Your task to perform on an android device: Search for flights from NYC to Chicago Image 0: 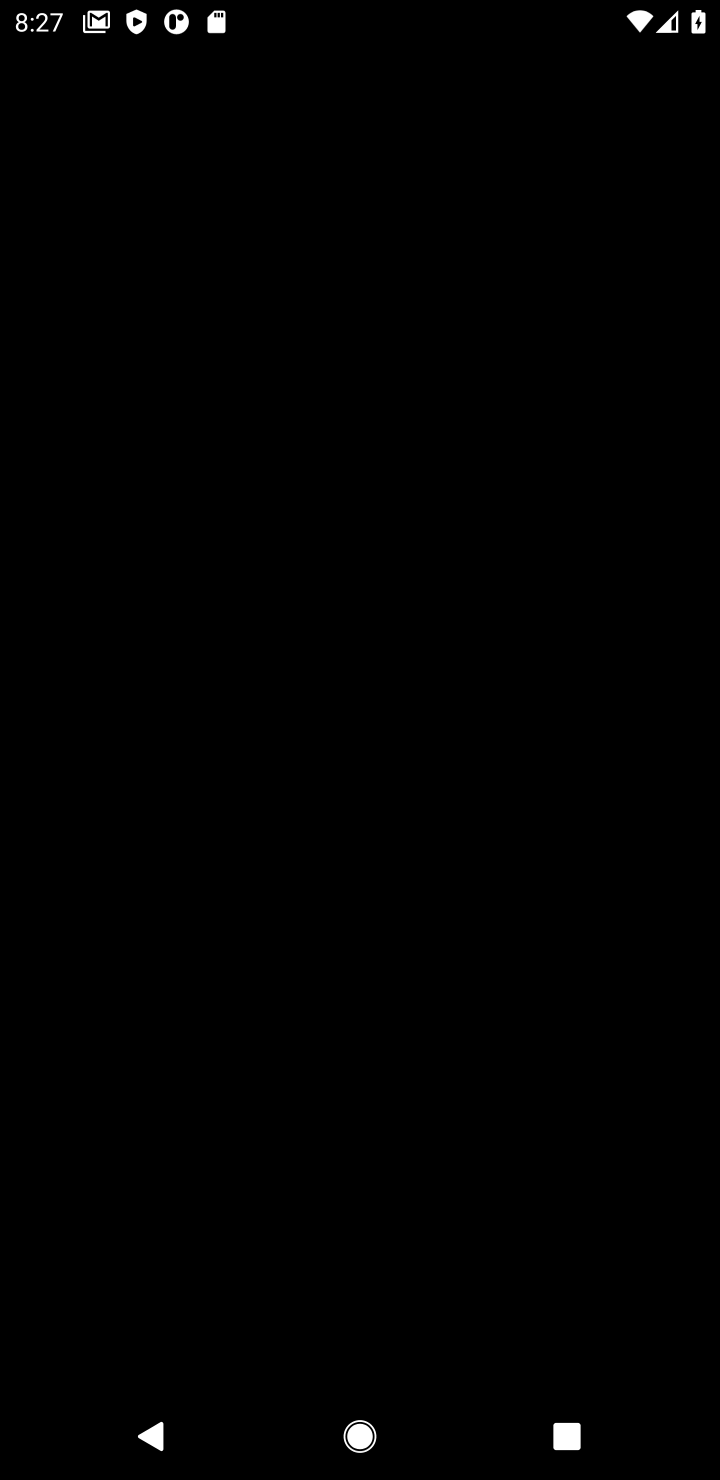
Step 0: press home button
Your task to perform on an android device: Search for flights from NYC to Chicago Image 1: 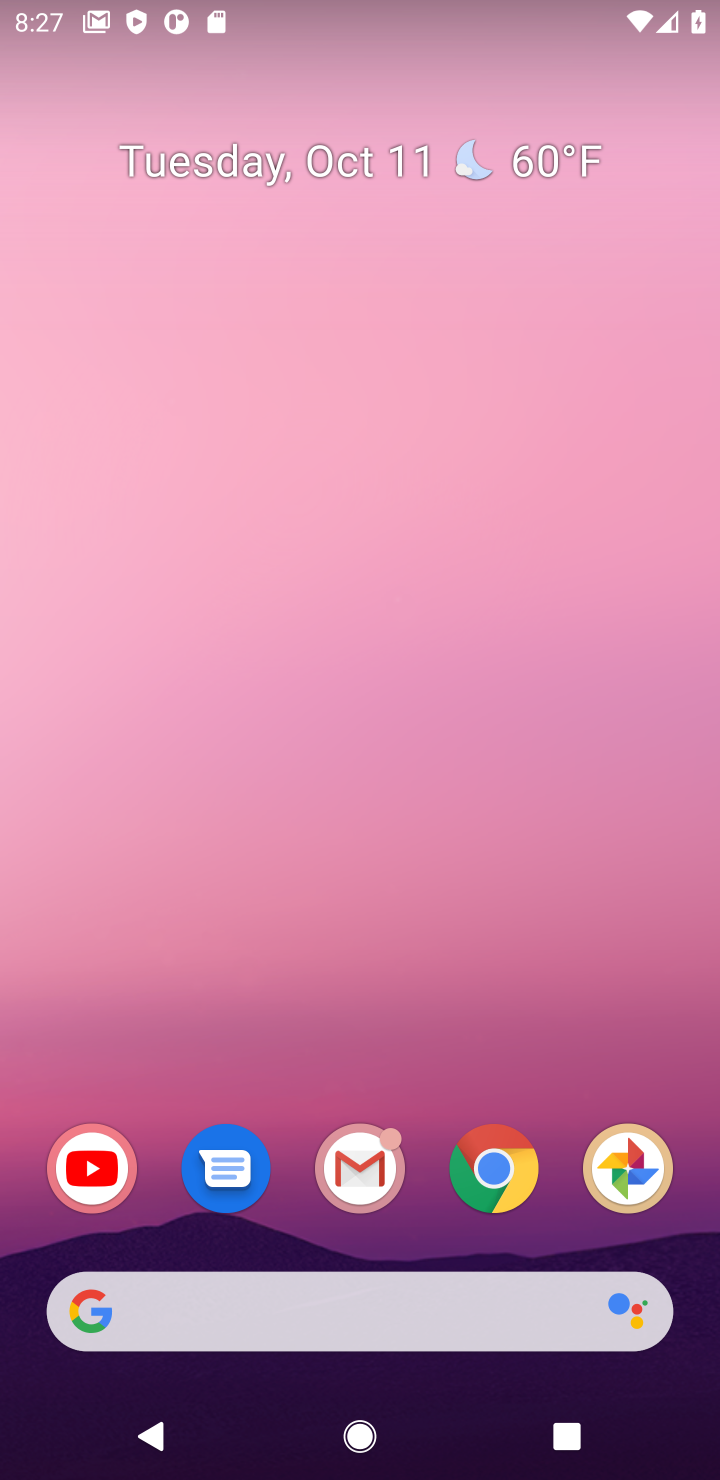
Step 1: click (510, 1162)
Your task to perform on an android device: Search for flights from NYC to Chicago Image 2: 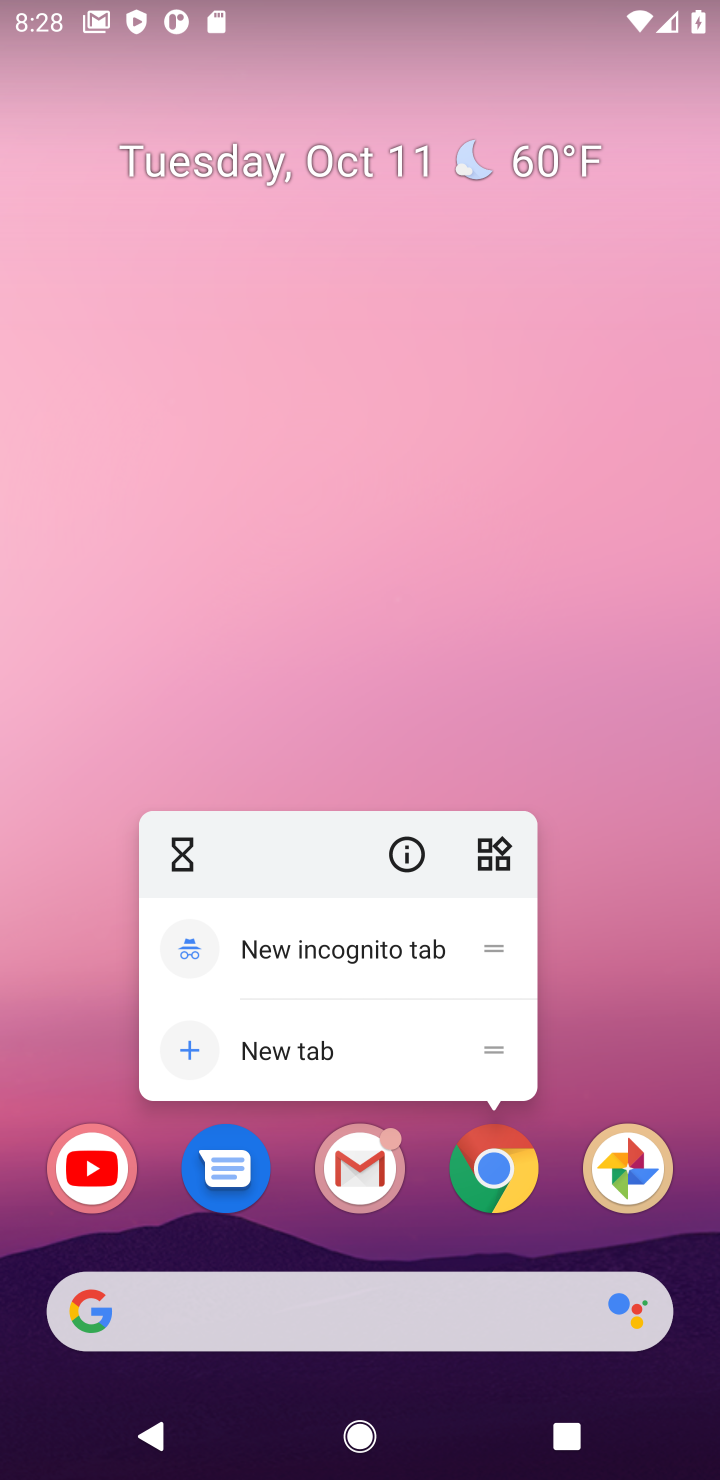
Step 2: press back button
Your task to perform on an android device: Search for flights from NYC to Chicago Image 3: 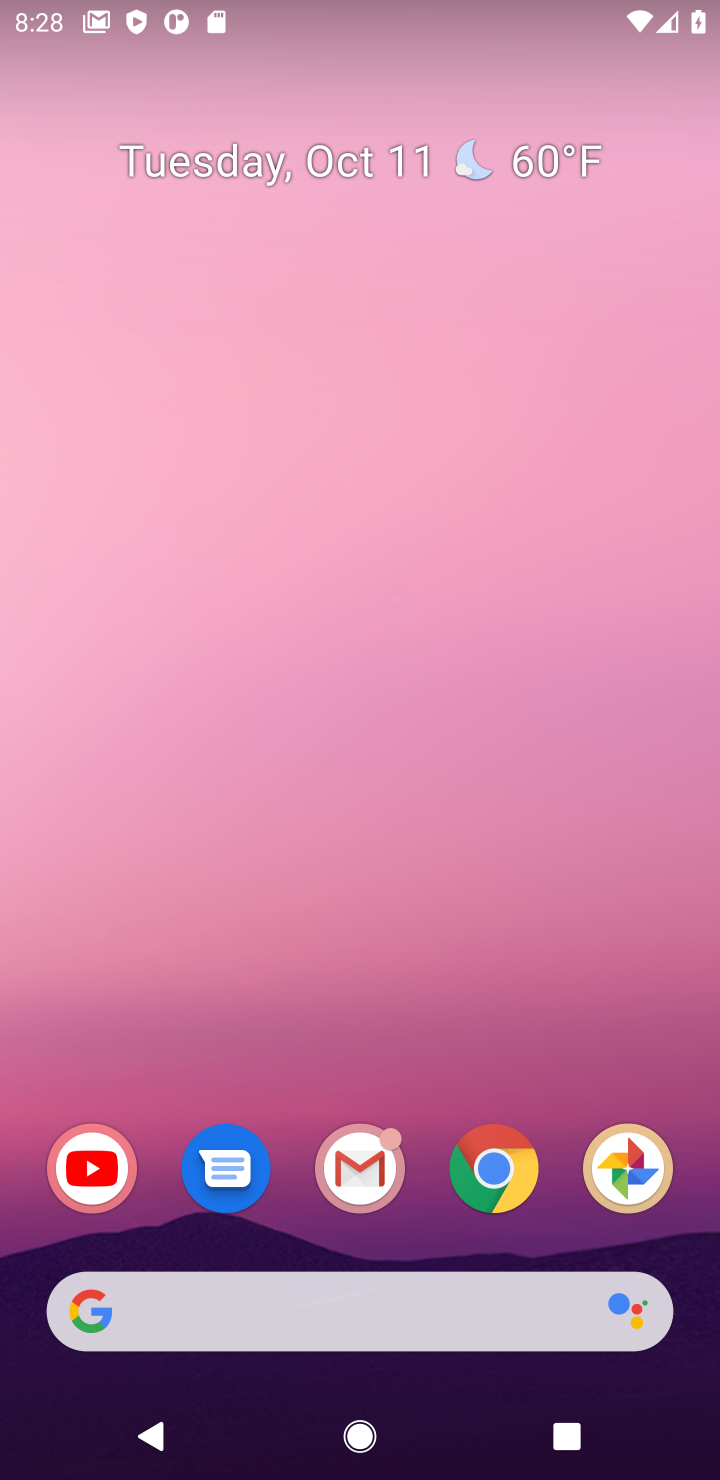
Step 3: click (483, 1183)
Your task to perform on an android device: Search for flights from NYC to Chicago Image 4: 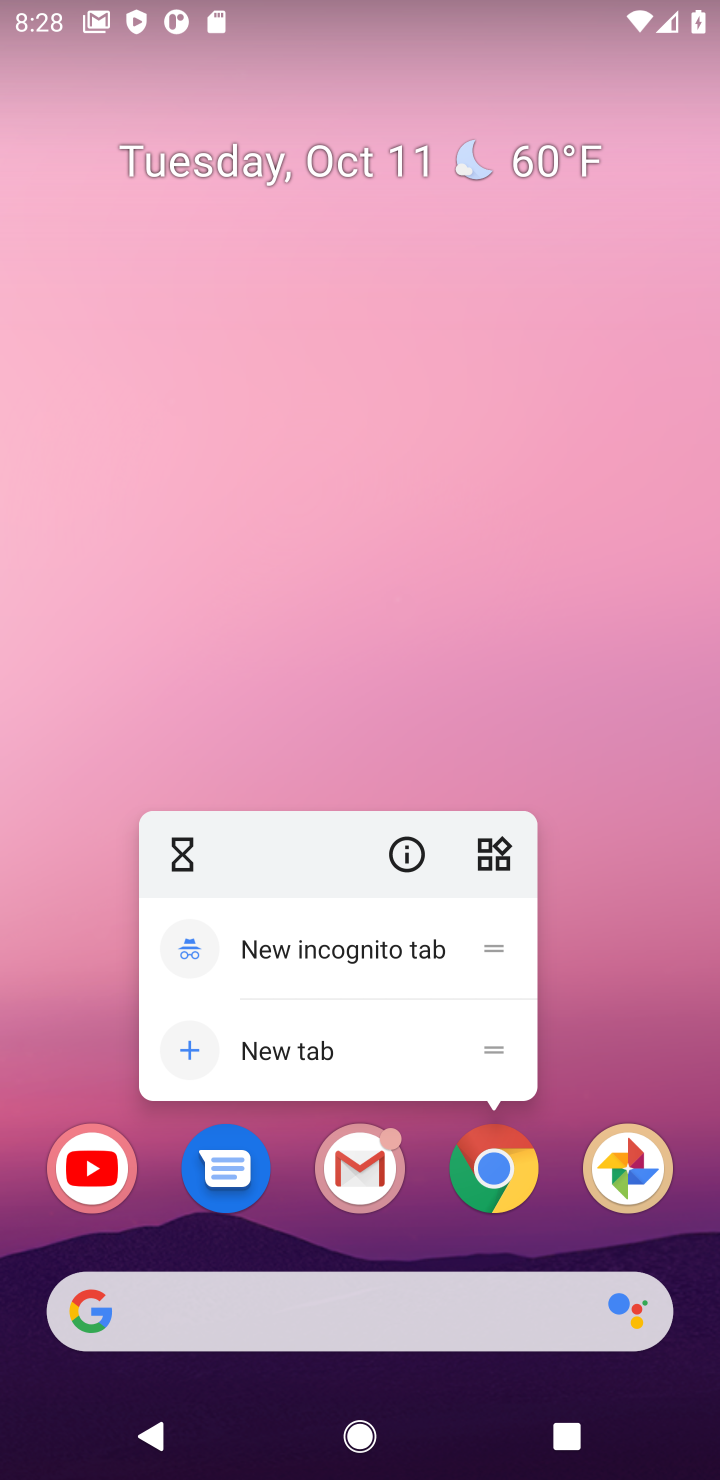
Step 4: click (487, 1172)
Your task to perform on an android device: Search for flights from NYC to Chicago Image 5: 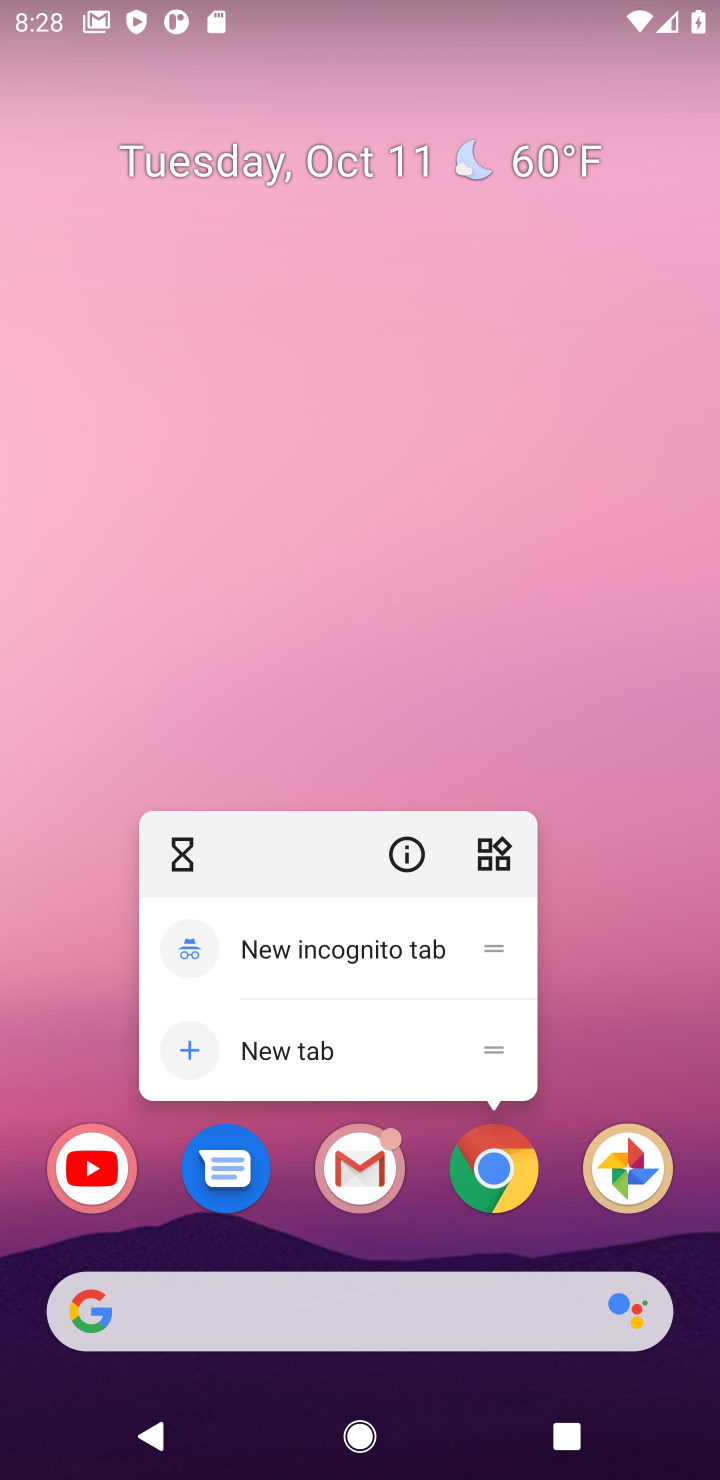
Step 5: click (487, 1162)
Your task to perform on an android device: Search for flights from NYC to Chicago Image 6: 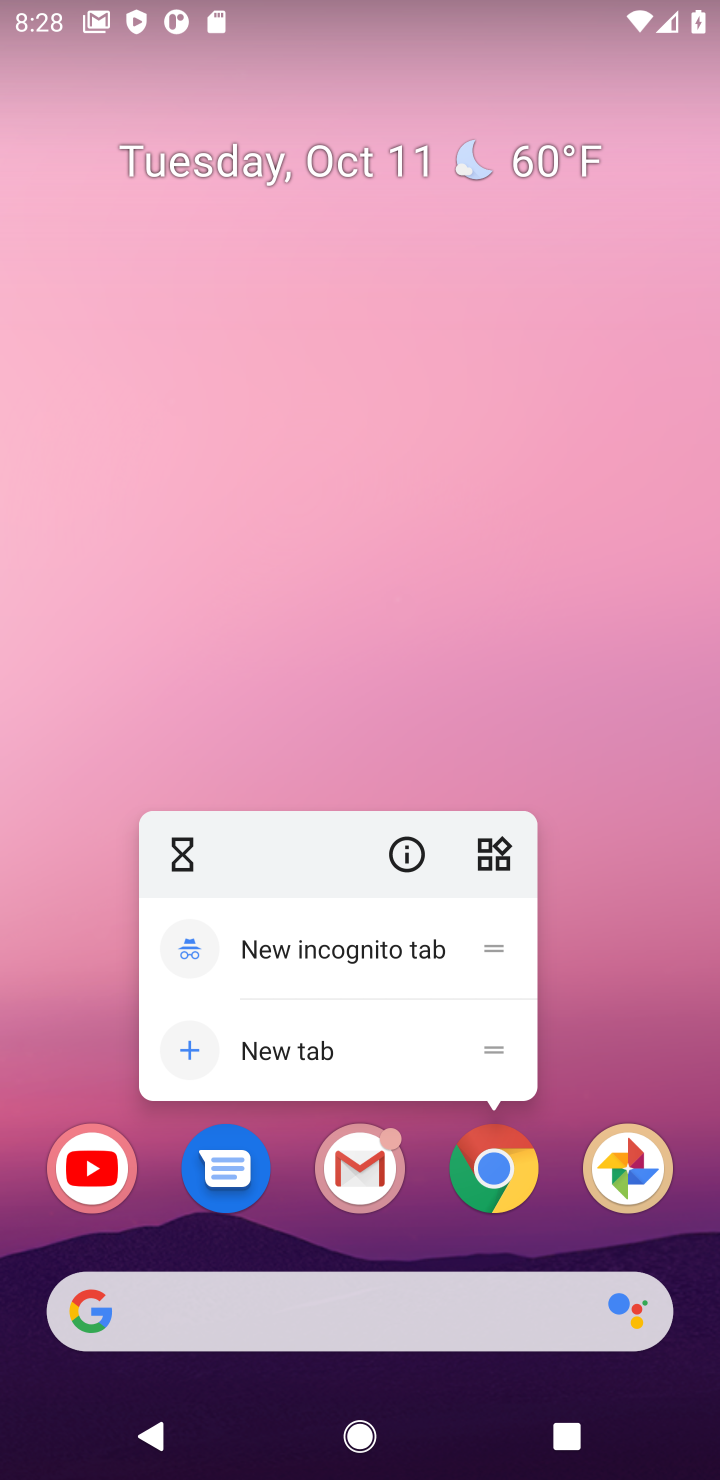
Step 6: click (515, 1167)
Your task to perform on an android device: Search for flights from NYC to Chicago Image 7: 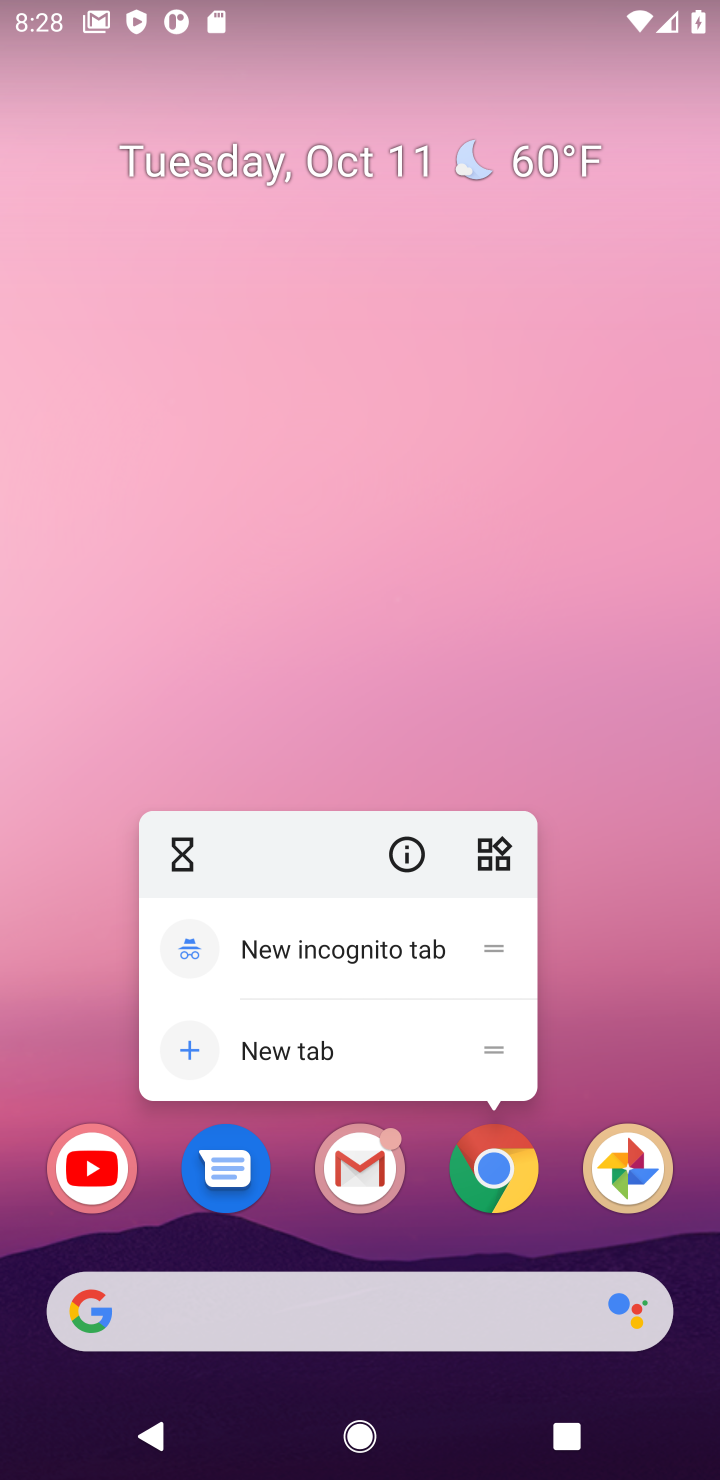
Step 7: press back button
Your task to perform on an android device: Search for flights from NYC to Chicago Image 8: 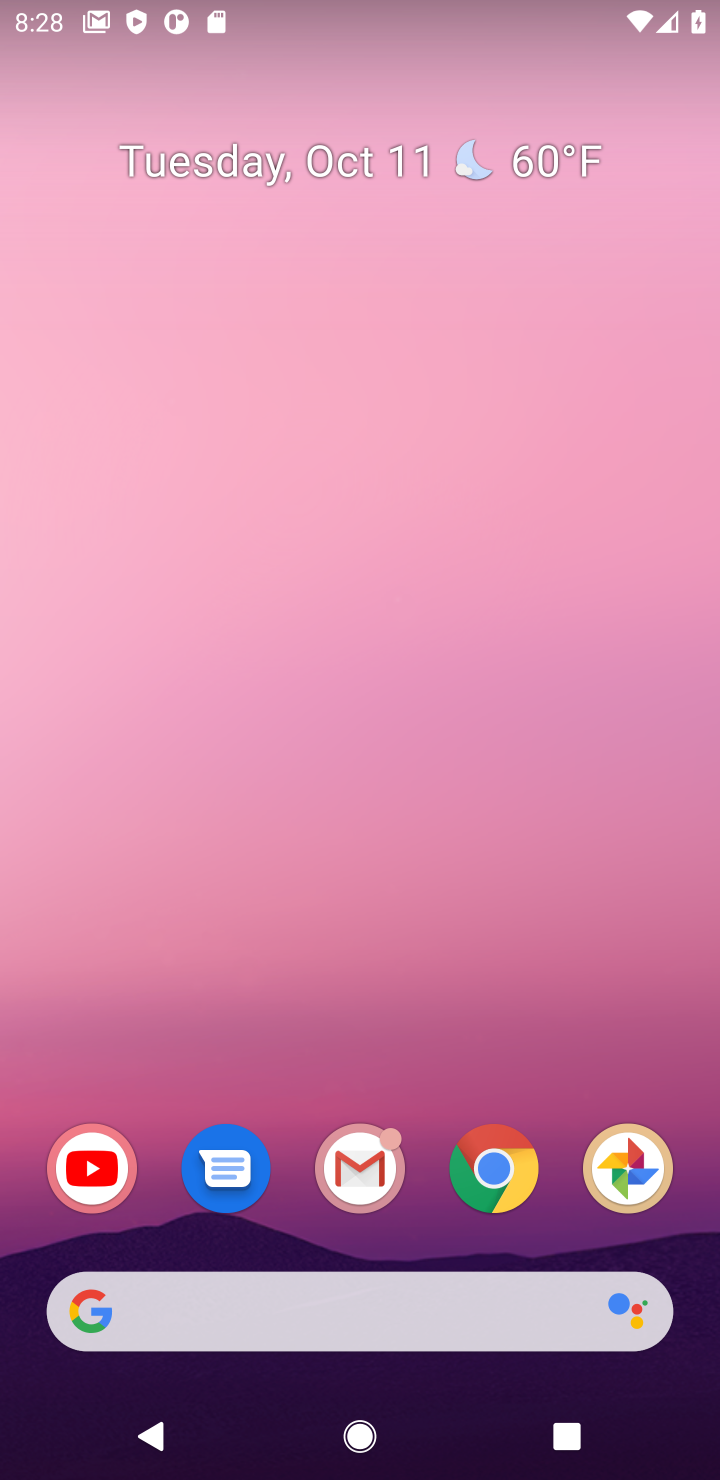
Step 8: press home button
Your task to perform on an android device: Search for flights from NYC to Chicago Image 9: 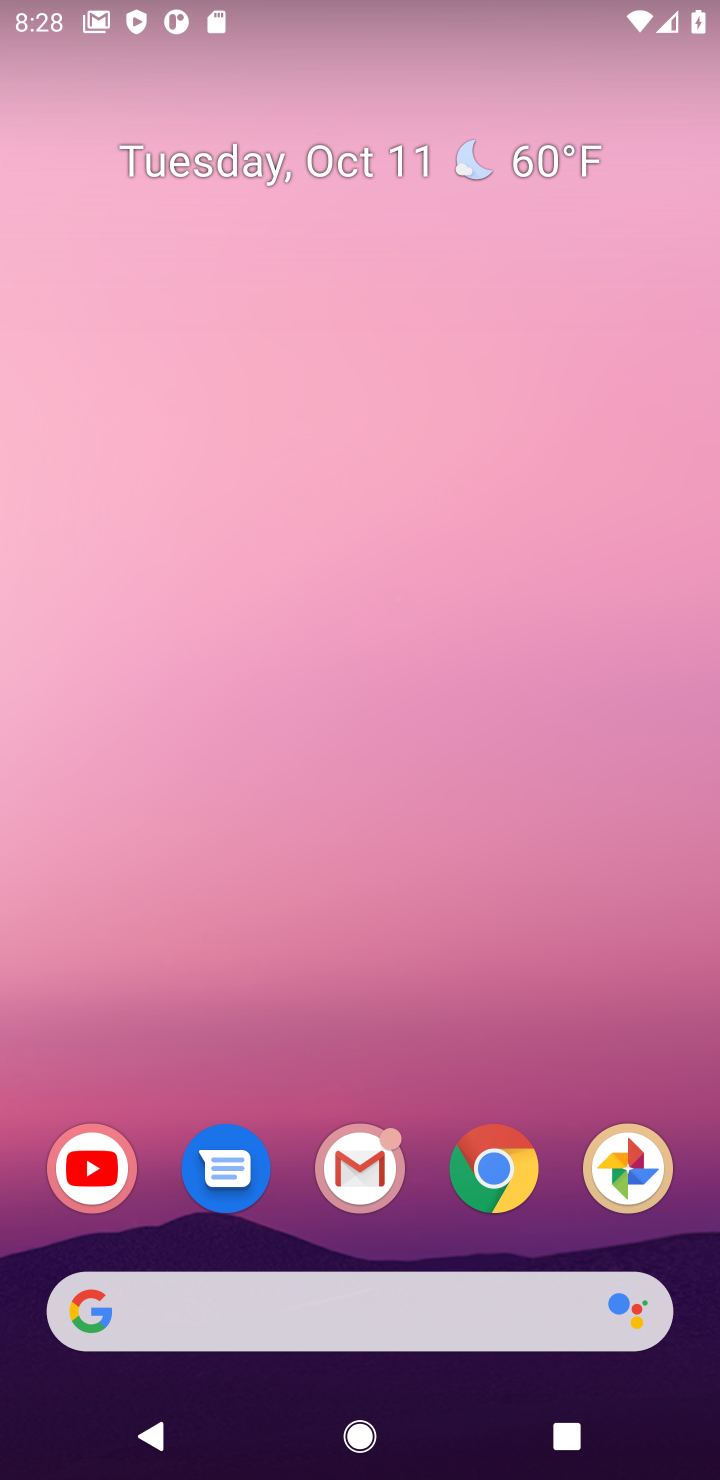
Step 9: press home button
Your task to perform on an android device: Search for flights from NYC to Chicago Image 10: 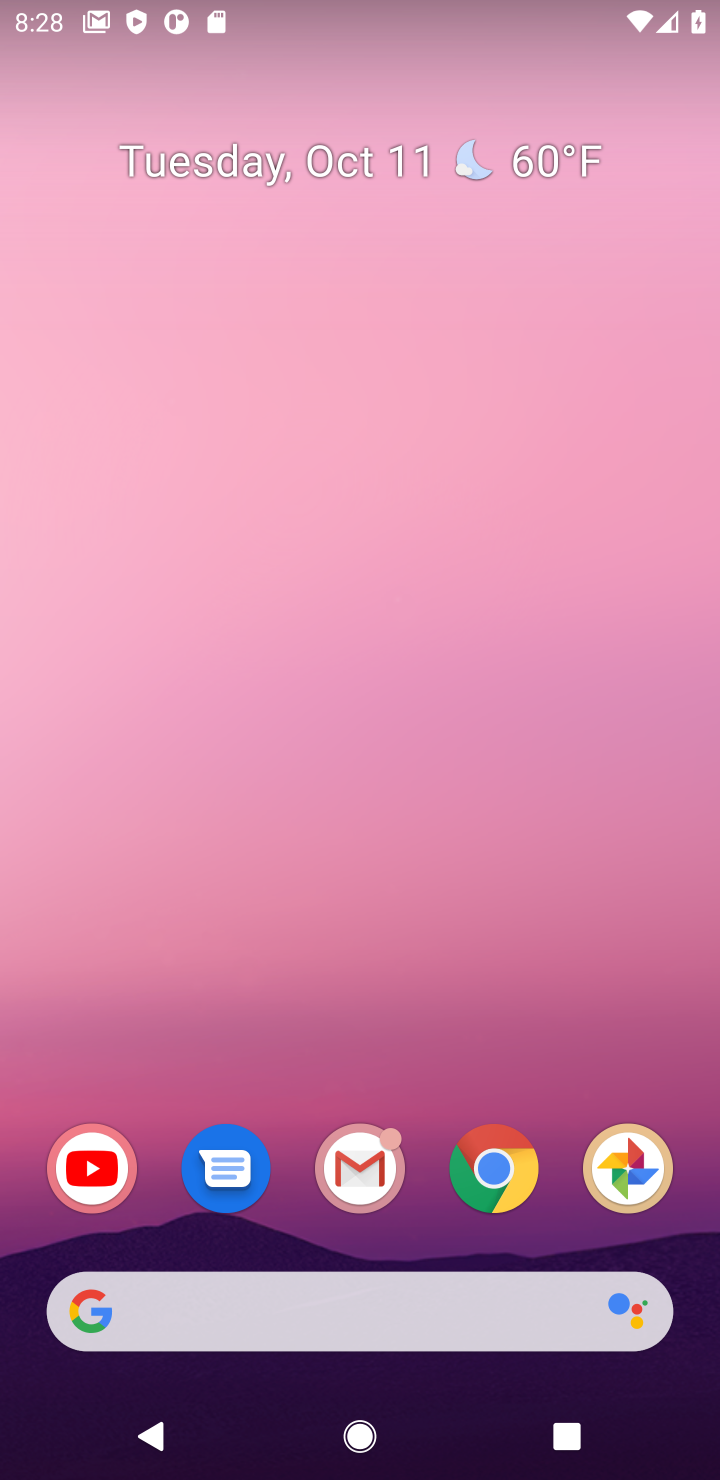
Step 10: click (452, 1162)
Your task to perform on an android device: Search for flights from NYC to Chicago Image 11: 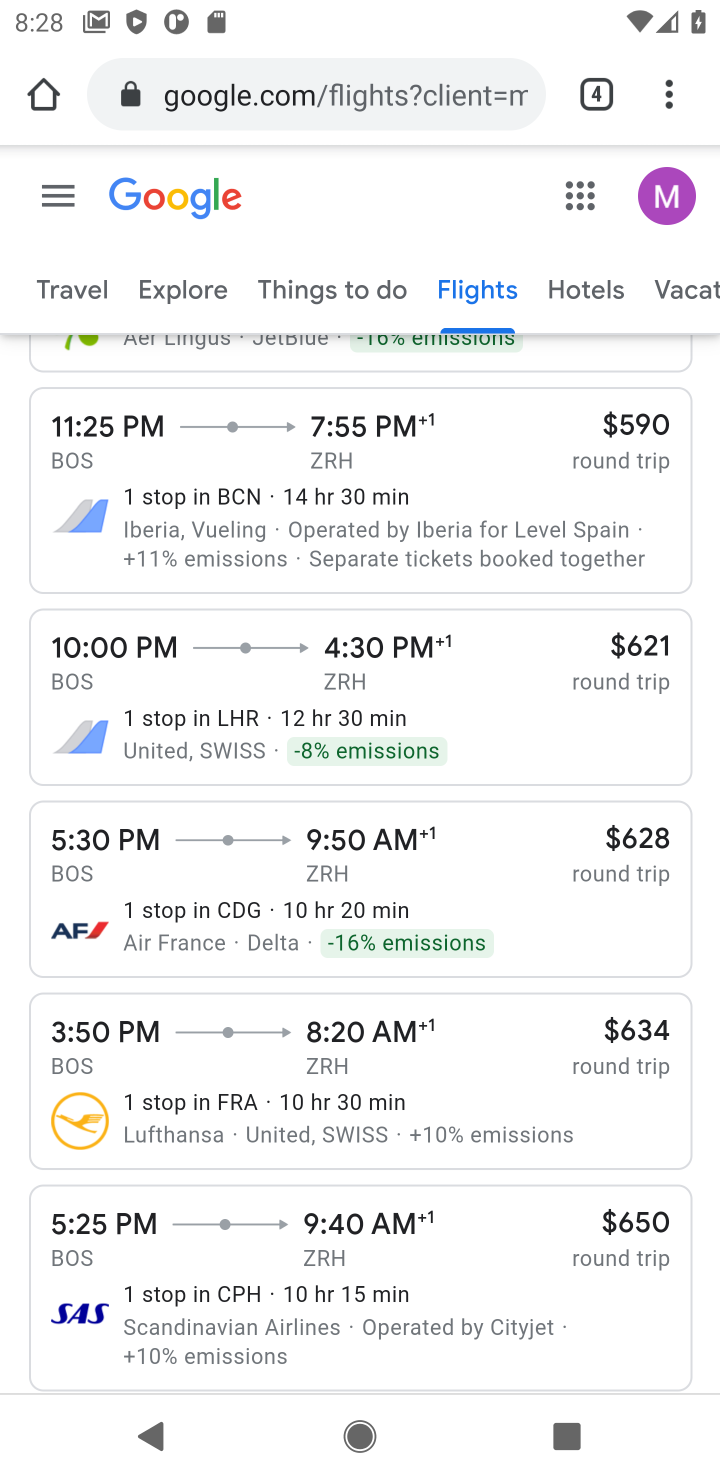
Step 11: click (349, 104)
Your task to perform on an android device: Search for flights from NYC to Chicago Image 12: 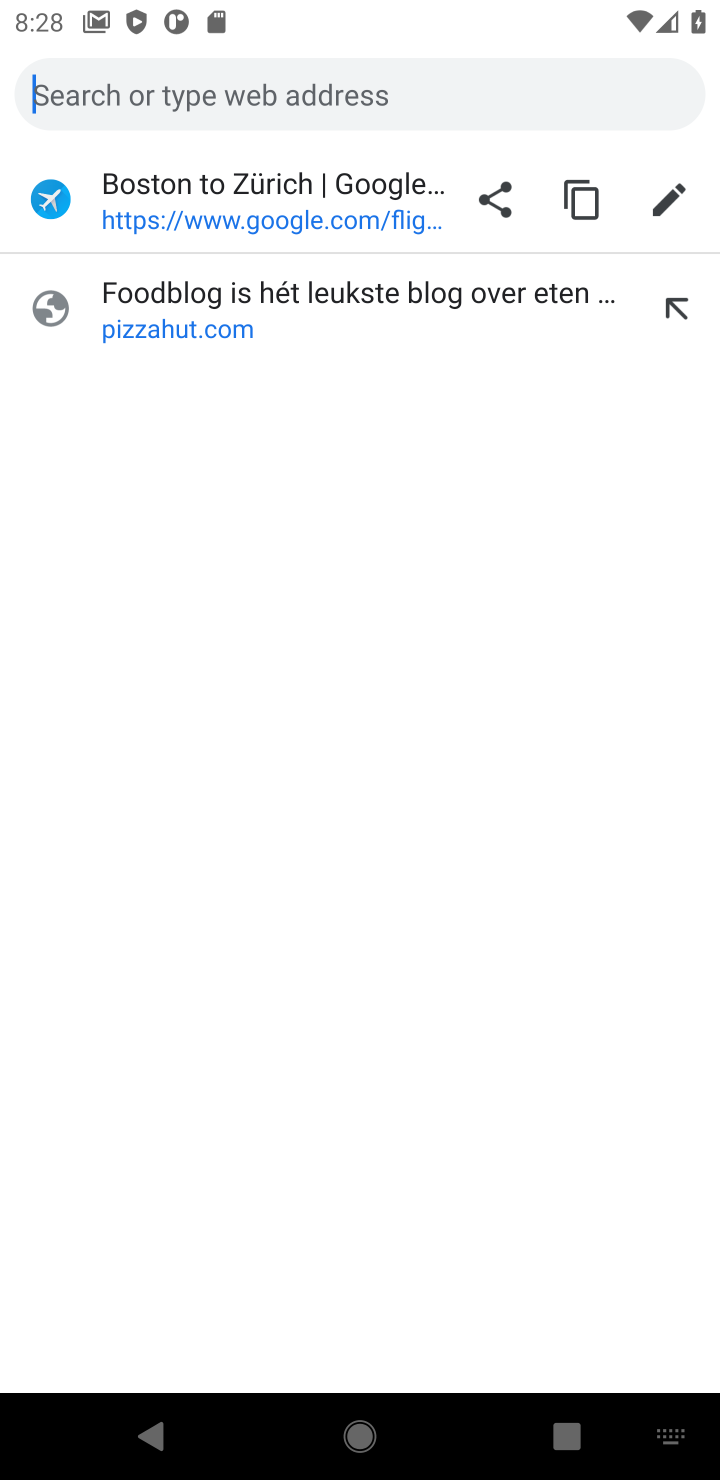
Step 12: click (377, 192)
Your task to perform on an android device: Search for flights from NYC to Chicago Image 13: 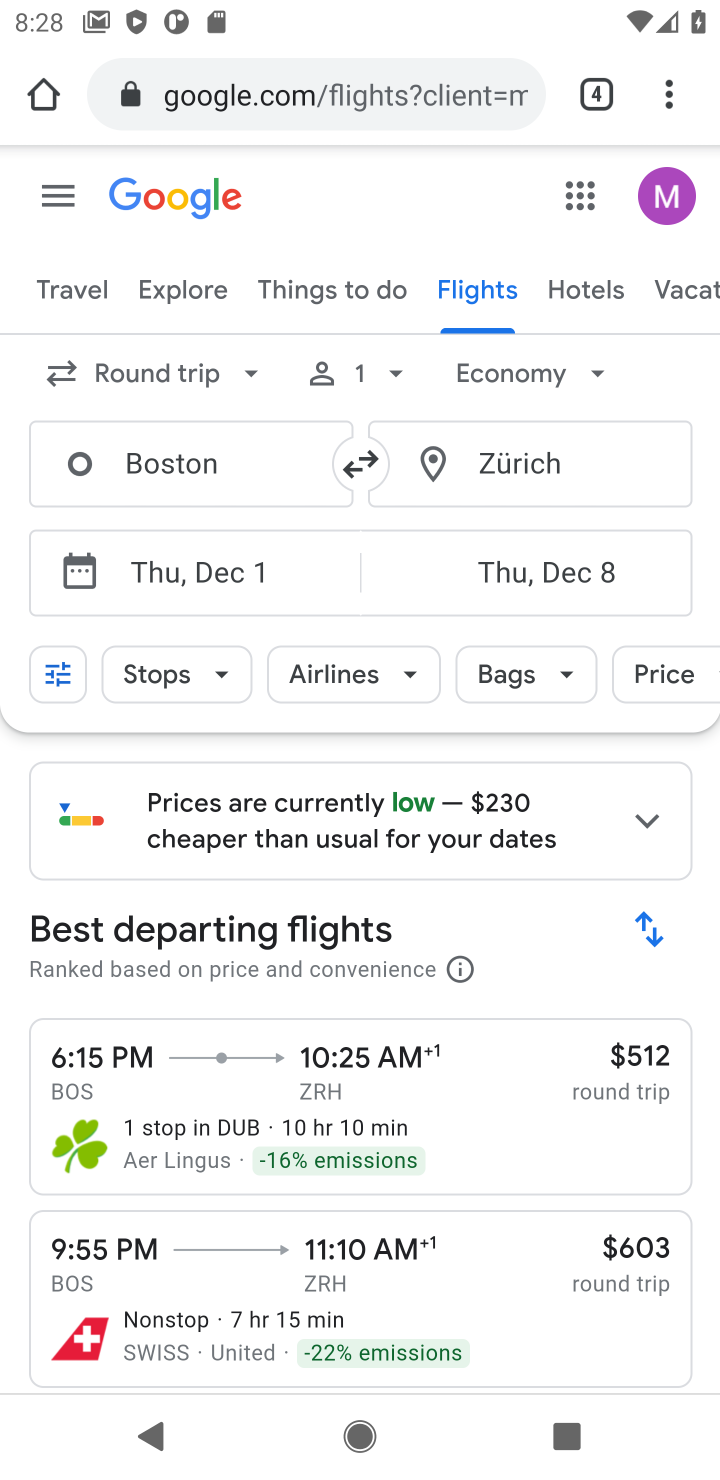
Step 13: click (188, 446)
Your task to perform on an android device: Search for flights from NYC to Chicago Image 14: 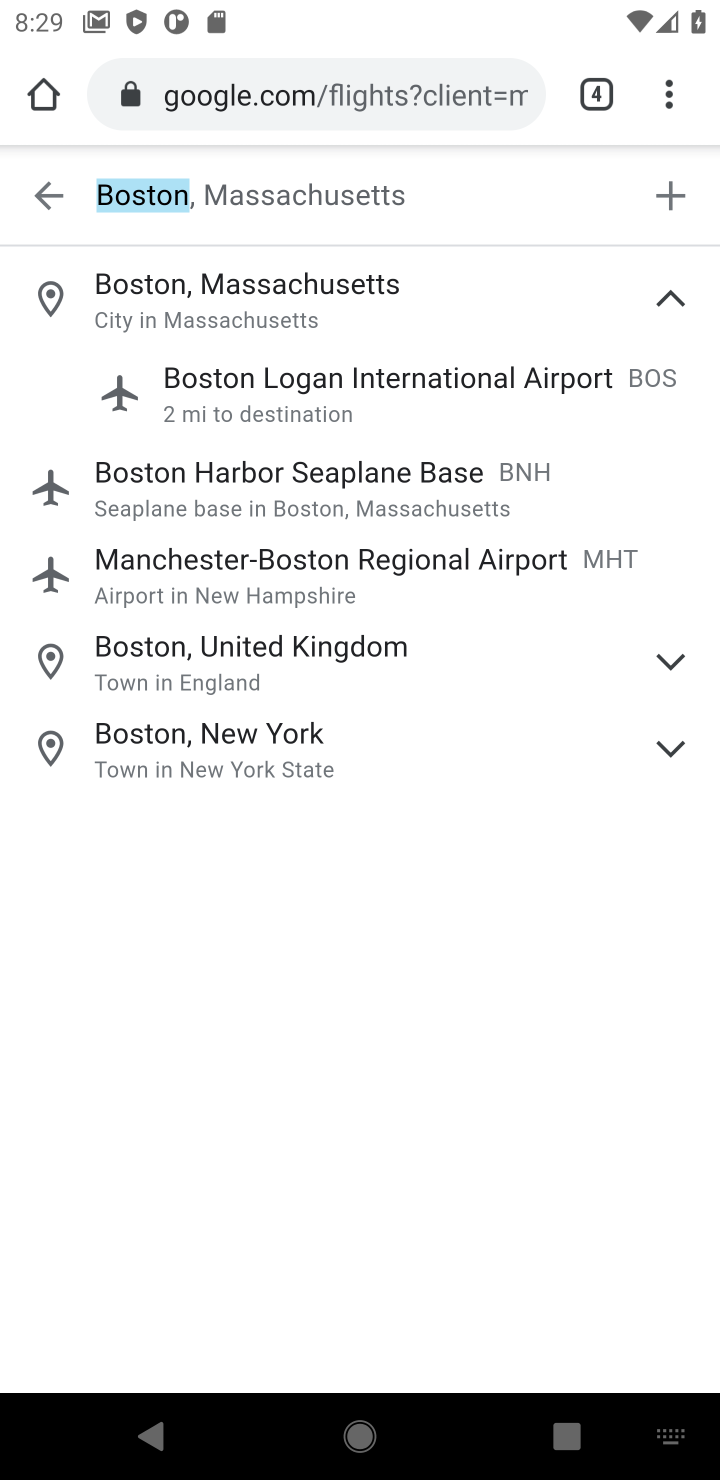
Step 14: type "nyc"
Your task to perform on an android device: Search for flights from NYC to Chicago Image 15: 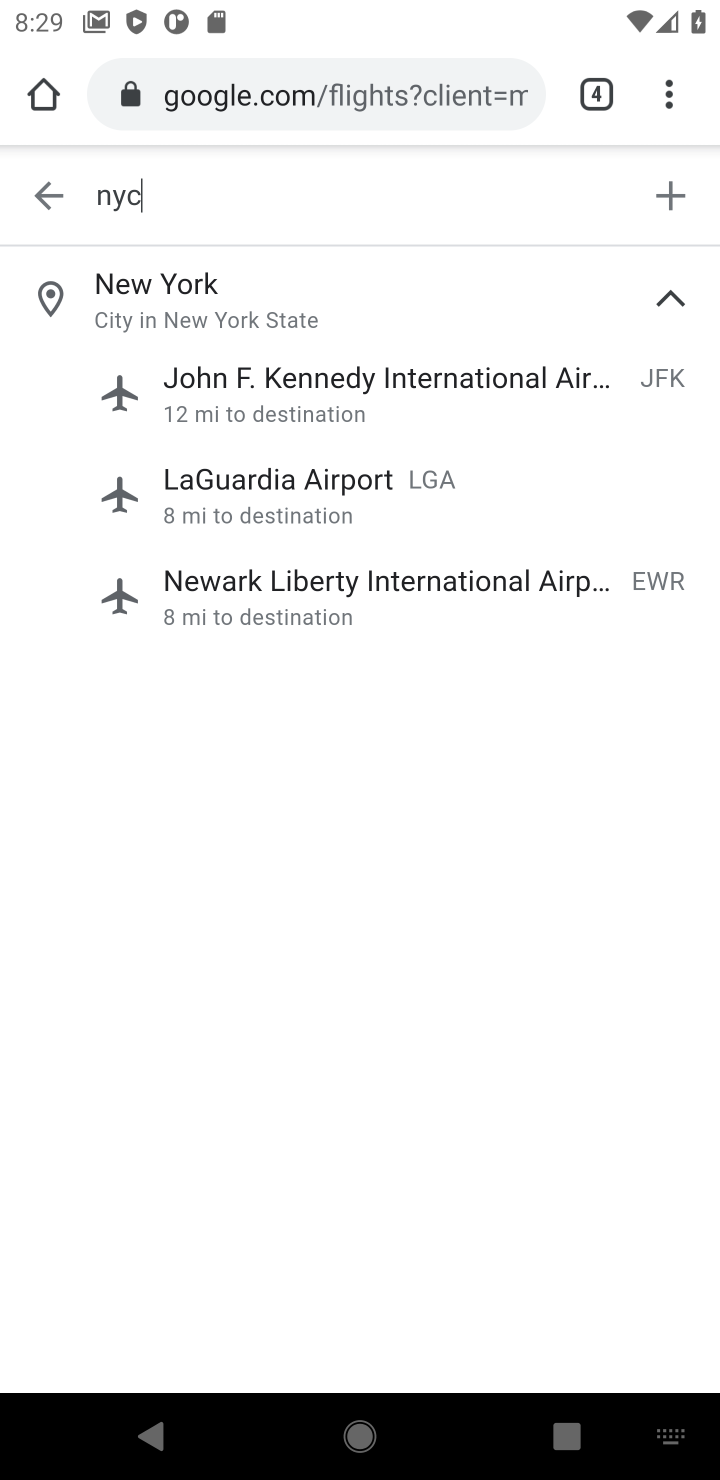
Step 15: click (181, 308)
Your task to perform on an android device: Search for flights from NYC to Chicago Image 16: 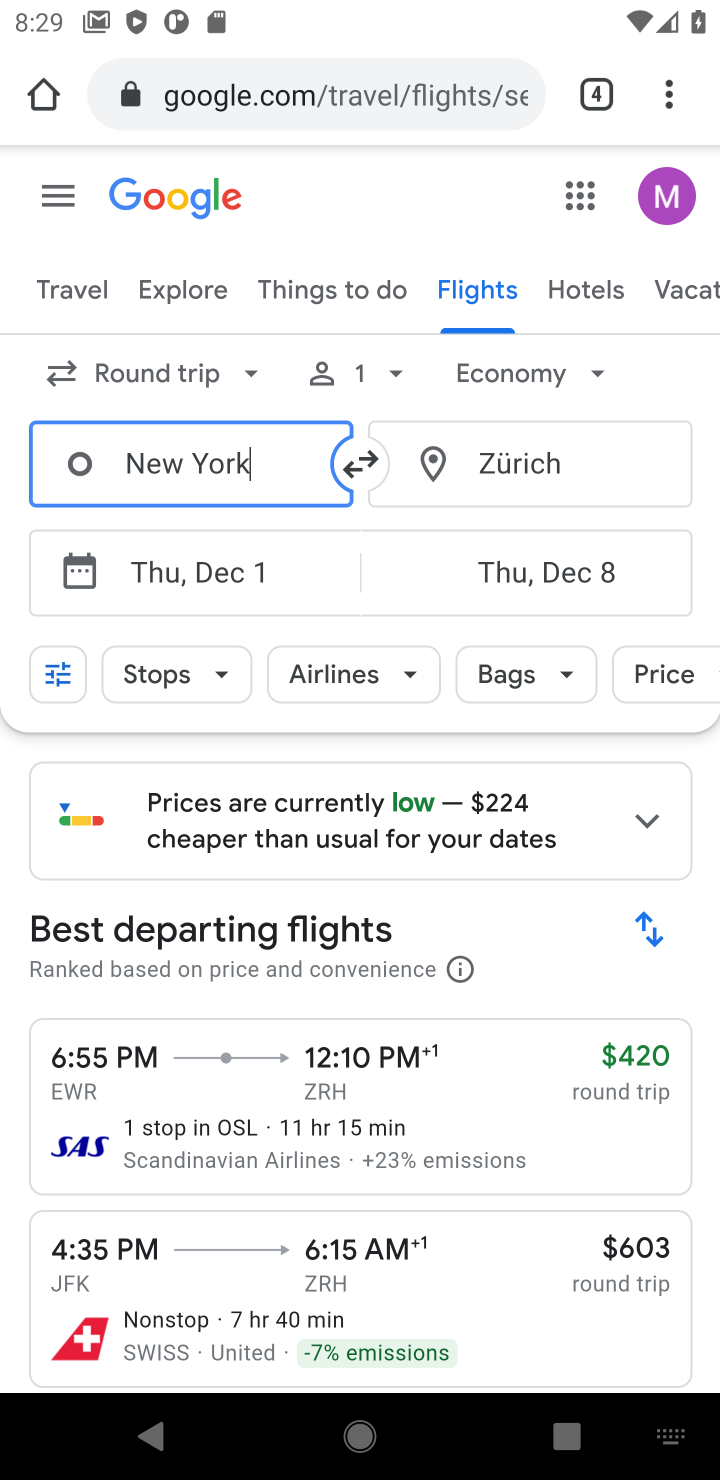
Step 16: click (479, 470)
Your task to perform on an android device: Search for flights from NYC to Chicago Image 17: 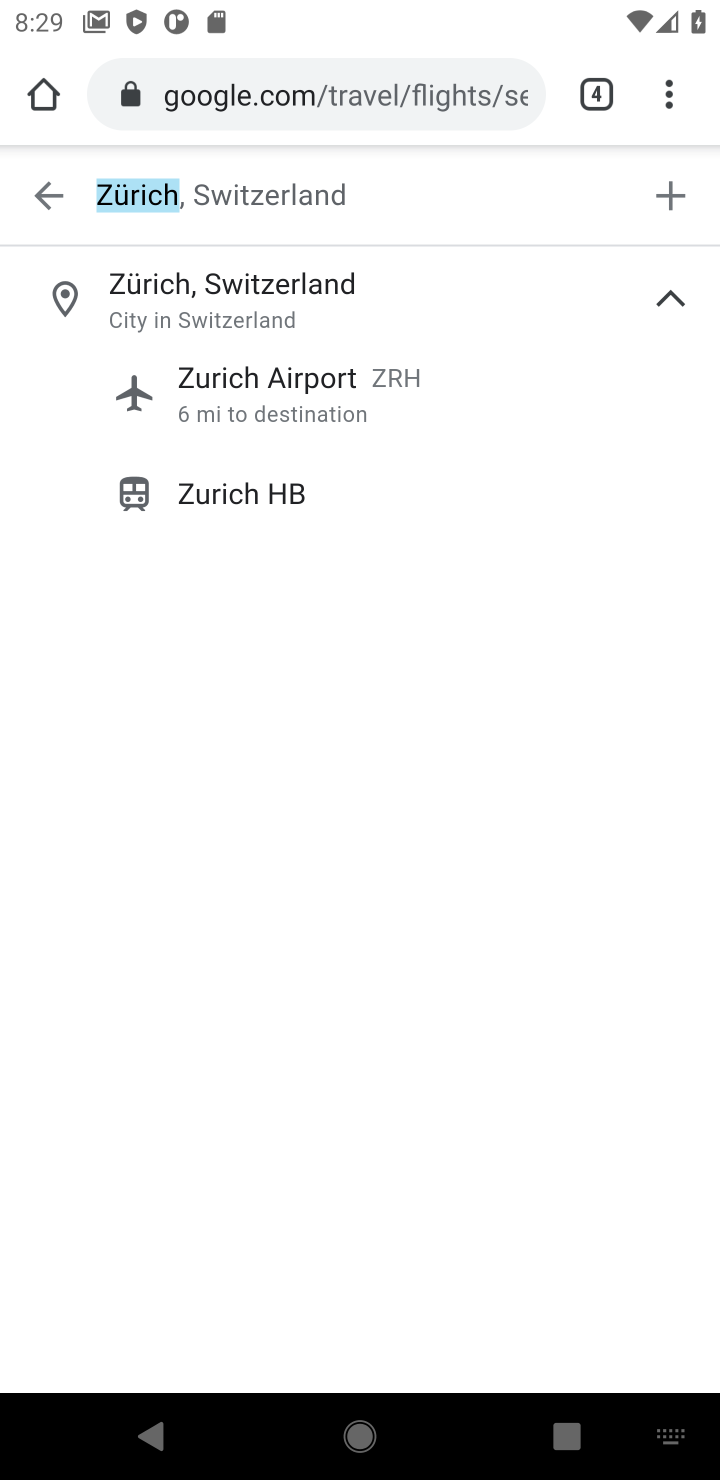
Step 17: type "chicago"
Your task to perform on an android device: Search for flights from NYC to Chicago Image 18: 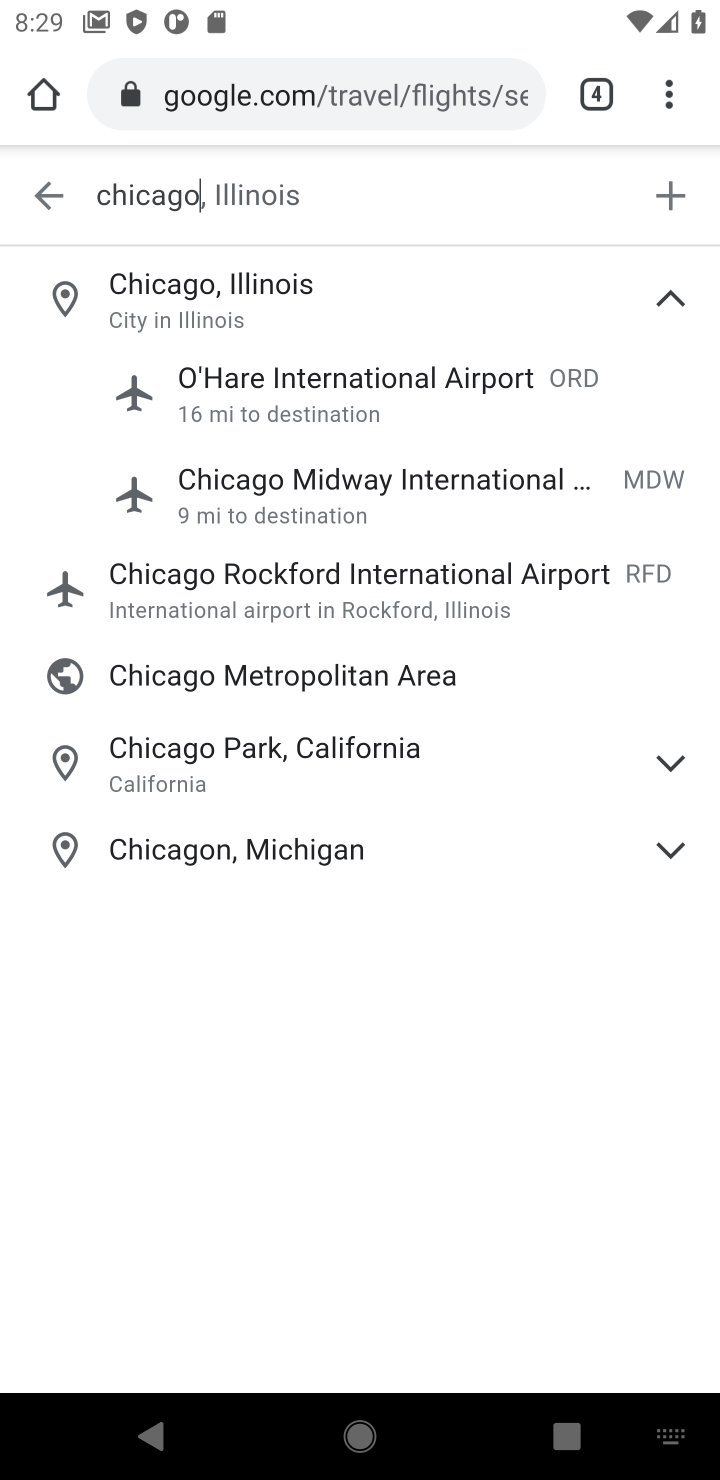
Step 18: type ""
Your task to perform on an android device: Search for flights from NYC to Chicago Image 19: 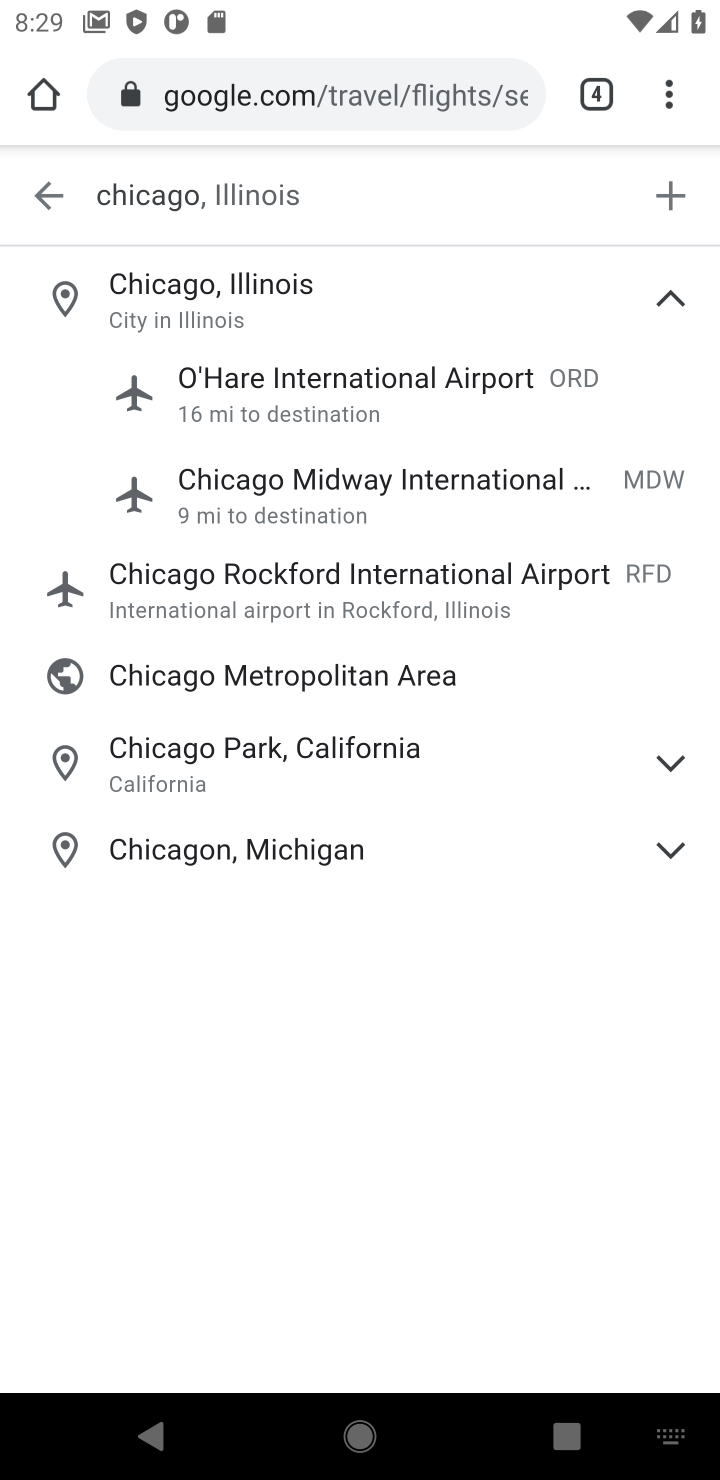
Step 19: click (251, 292)
Your task to perform on an android device: Search for flights from NYC to Chicago Image 20: 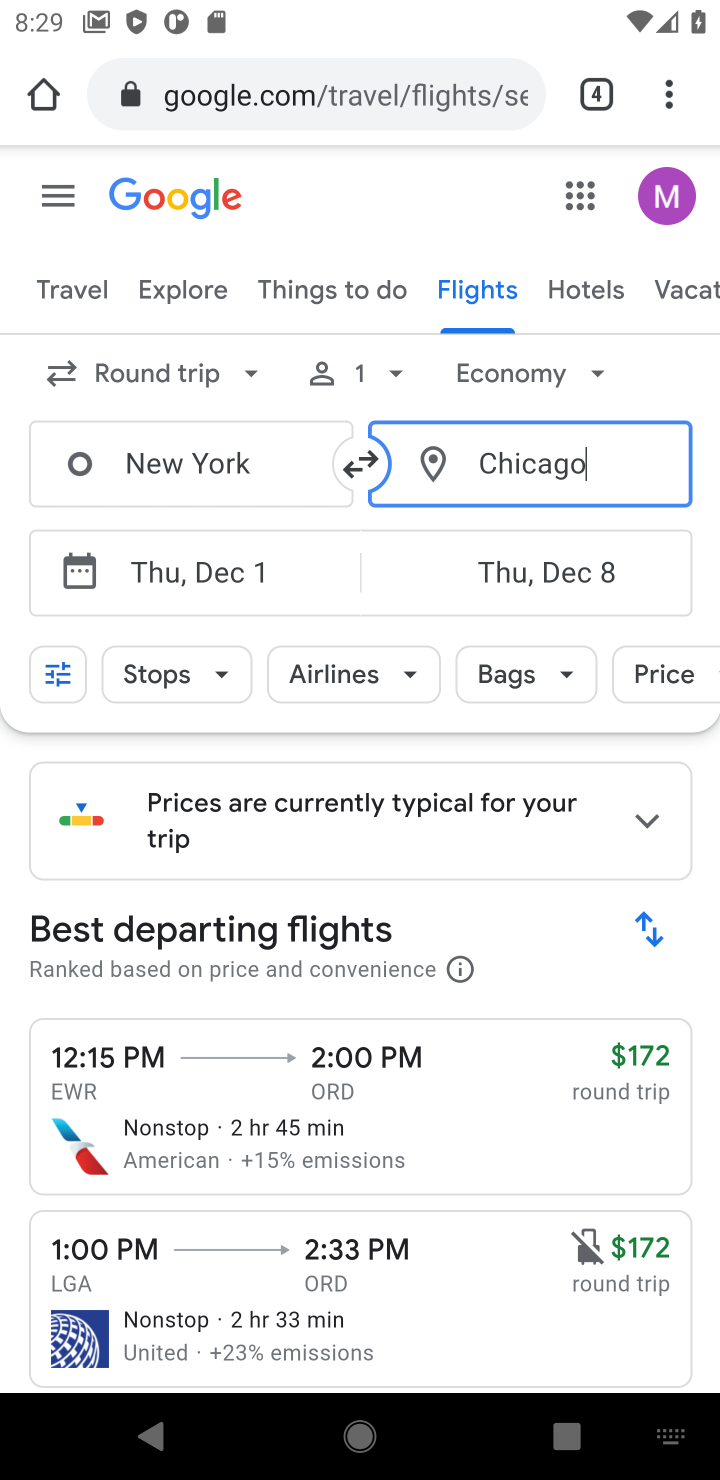
Step 20: drag from (387, 761) to (397, 491)
Your task to perform on an android device: Search for flights from NYC to Chicago Image 21: 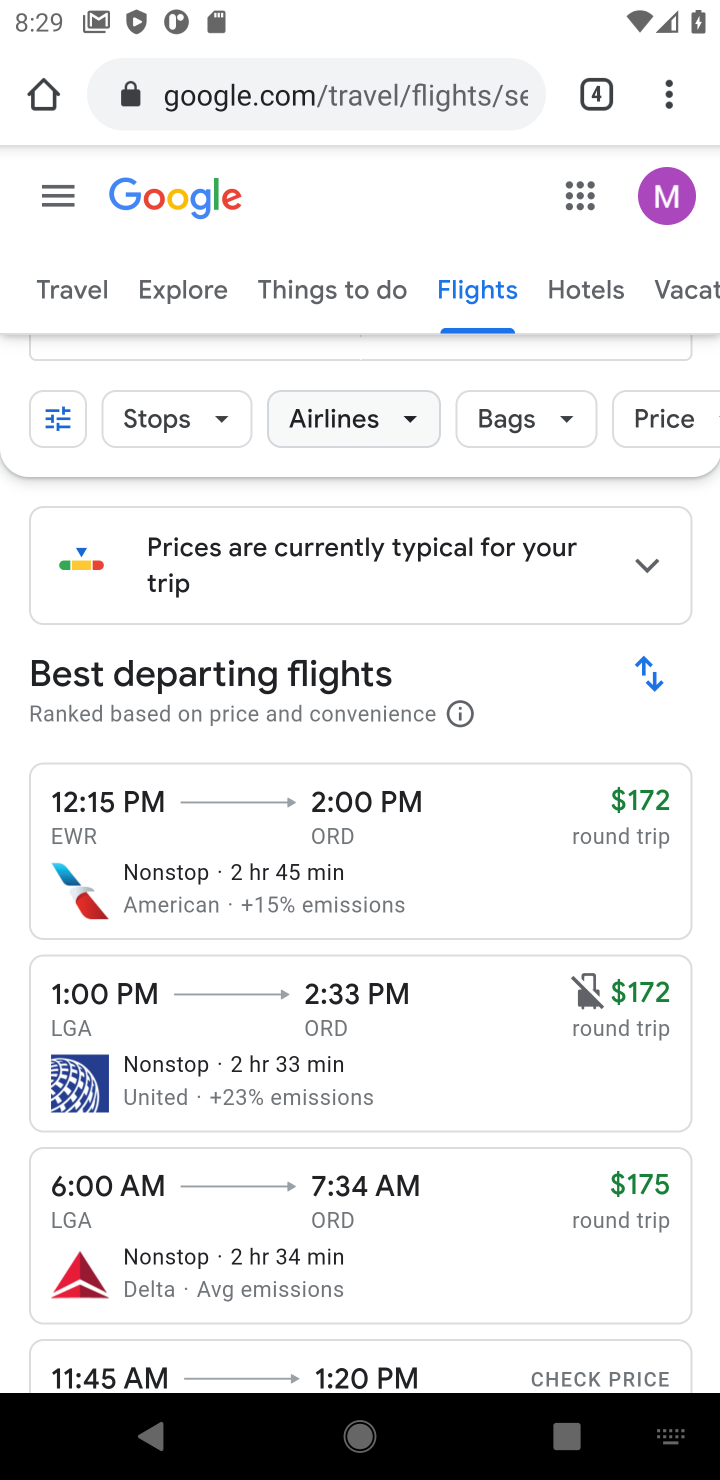
Step 21: drag from (509, 1109) to (486, 1259)
Your task to perform on an android device: Search for flights from NYC to Chicago Image 22: 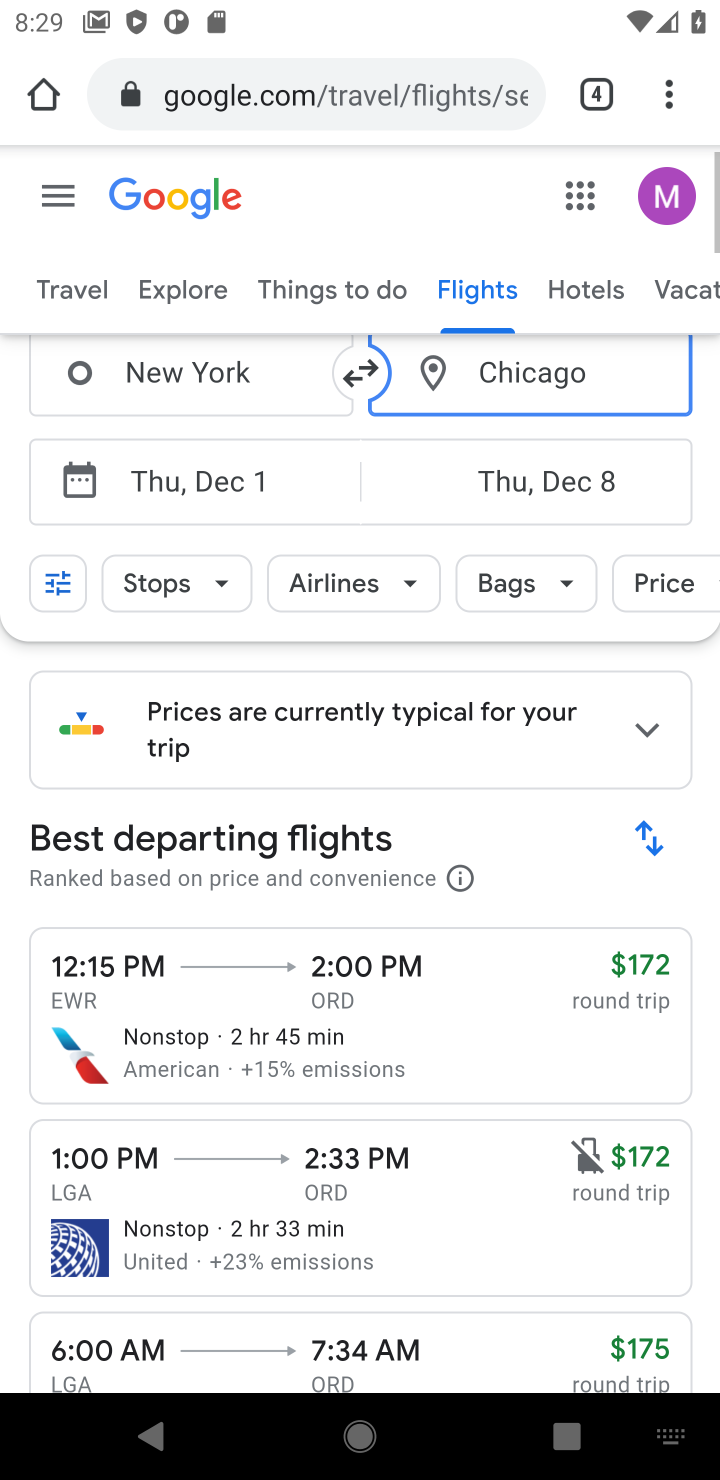
Step 22: drag from (351, 536) to (438, 1170)
Your task to perform on an android device: Search for flights from NYC to Chicago Image 23: 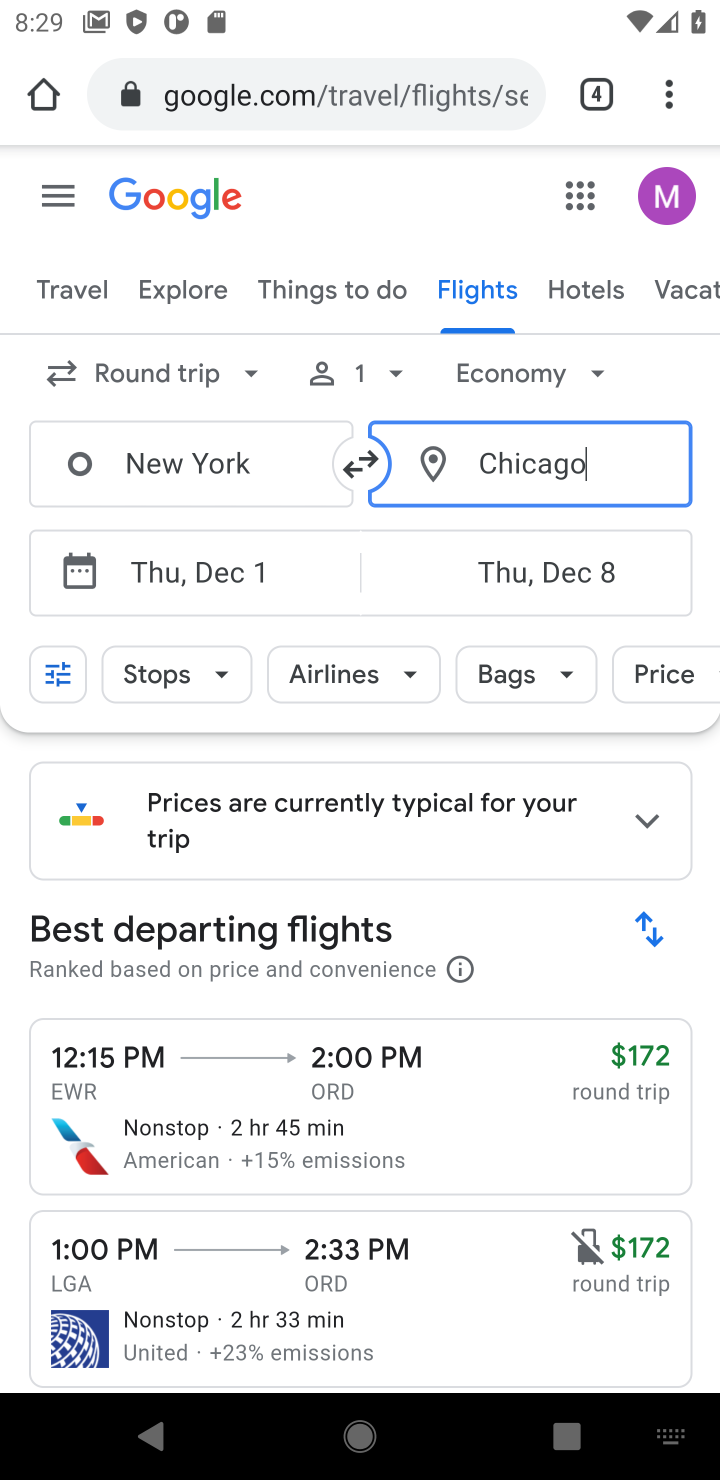
Step 23: drag from (421, 717) to (528, 1324)
Your task to perform on an android device: Search for flights from NYC to Chicago Image 24: 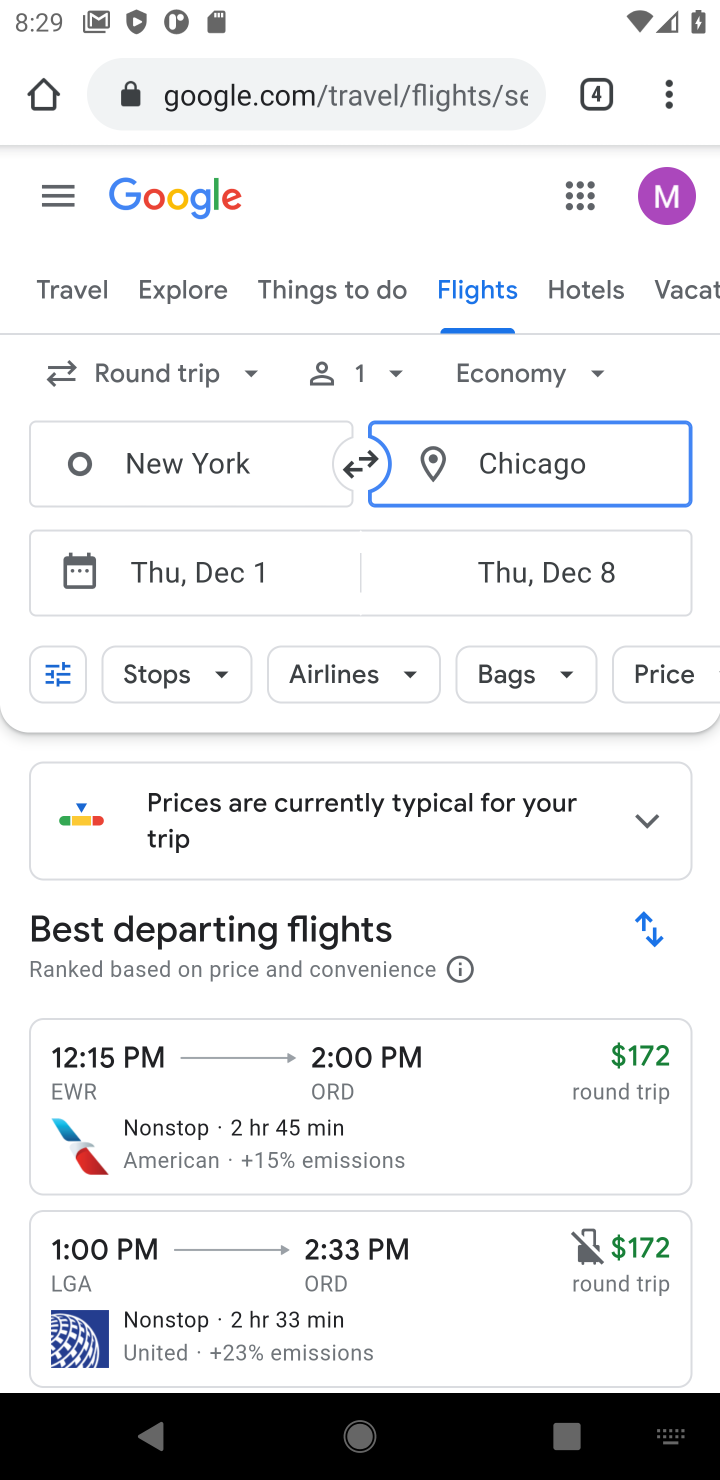
Step 24: drag from (393, 709) to (405, 1368)
Your task to perform on an android device: Search for flights from NYC to Chicago Image 25: 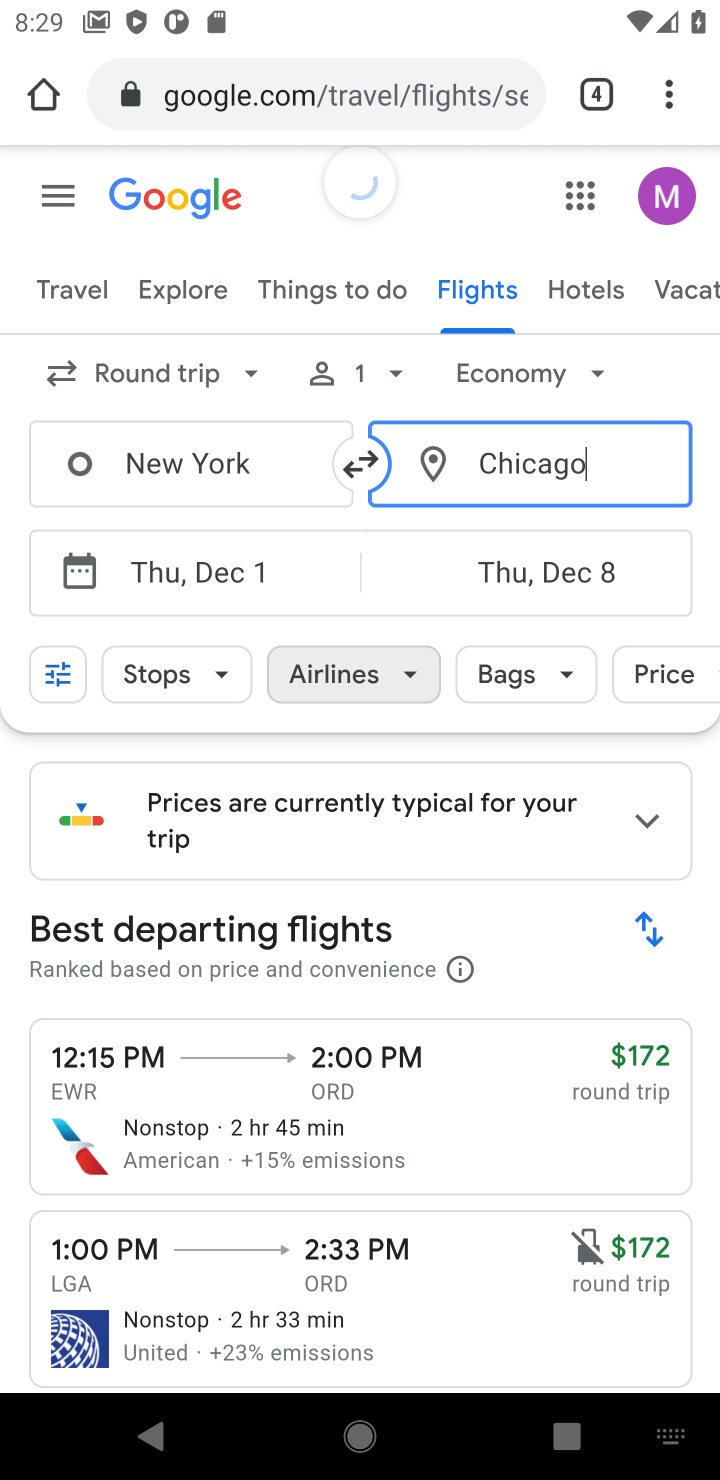
Step 25: drag from (489, 1109) to (489, 259)
Your task to perform on an android device: Search for flights from NYC to Chicago Image 26: 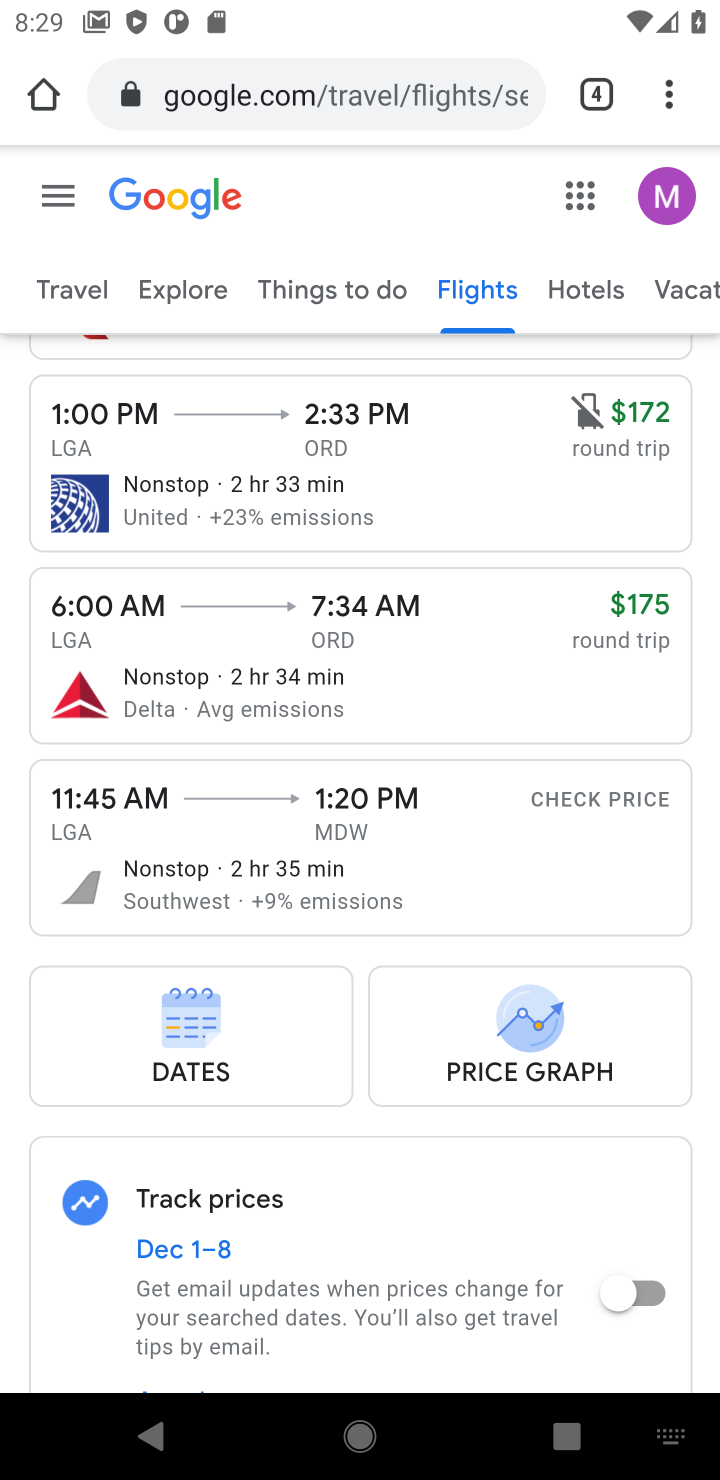
Step 26: drag from (338, 1143) to (381, 619)
Your task to perform on an android device: Search for flights from NYC to Chicago Image 27: 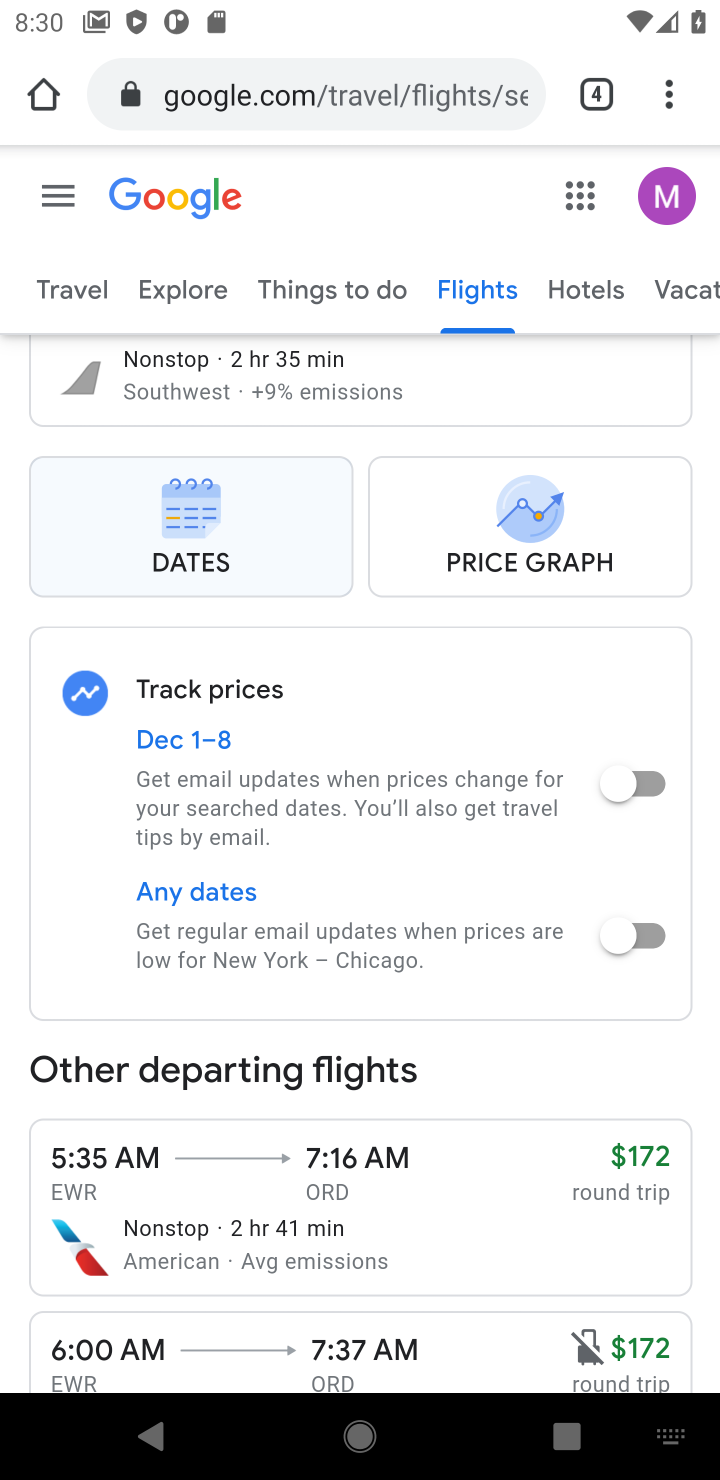
Step 27: drag from (460, 1159) to (380, 760)
Your task to perform on an android device: Search for flights from NYC to Chicago Image 28: 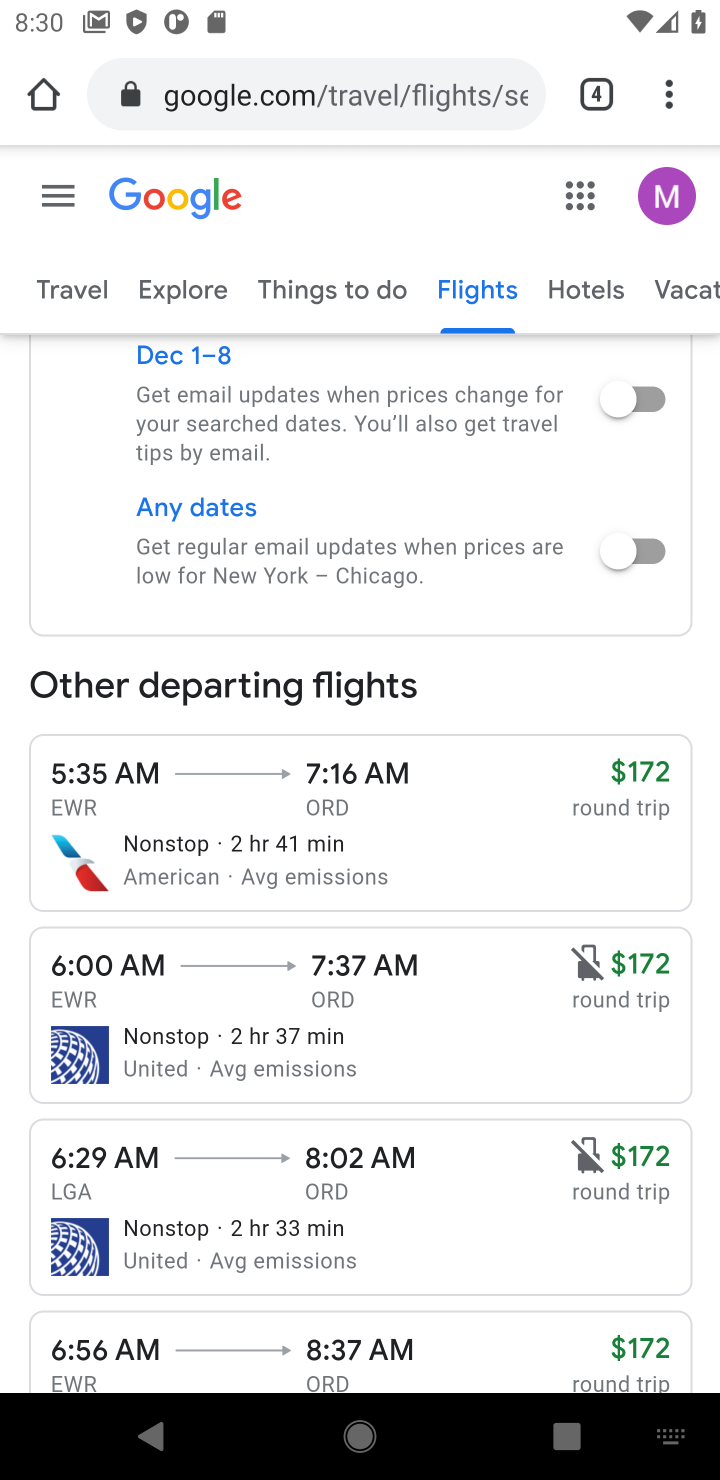
Step 28: drag from (385, 1088) to (420, 841)
Your task to perform on an android device: Search for flights from NYC to Chicago Image 29: 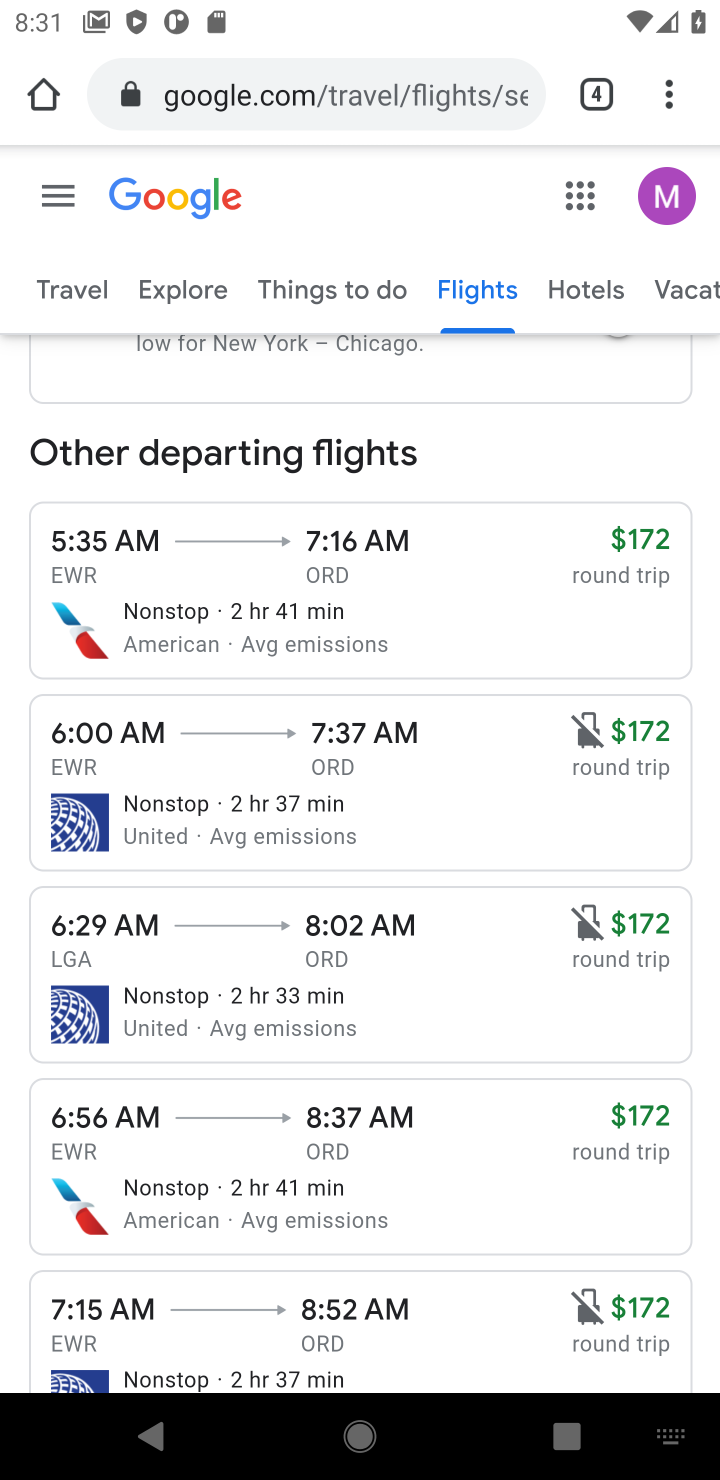
Step 29: drag from (635, 1014) to (681, 405)
Your task to perform on an android device: Search for flights from NYC to Chicago Image 30: 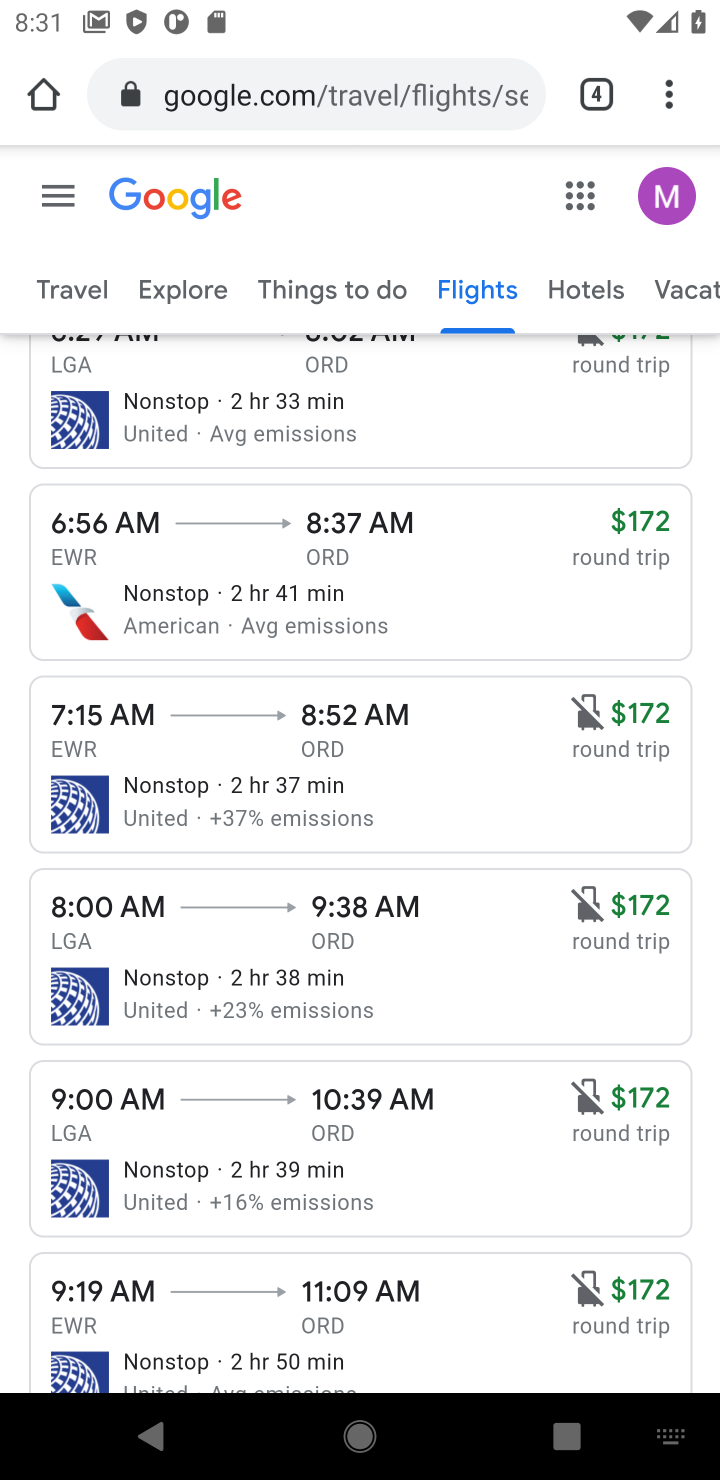
Step 30: click (430, 489)
Your task to perform on an android device: Search for flights from NYC to Chicago Image 31: 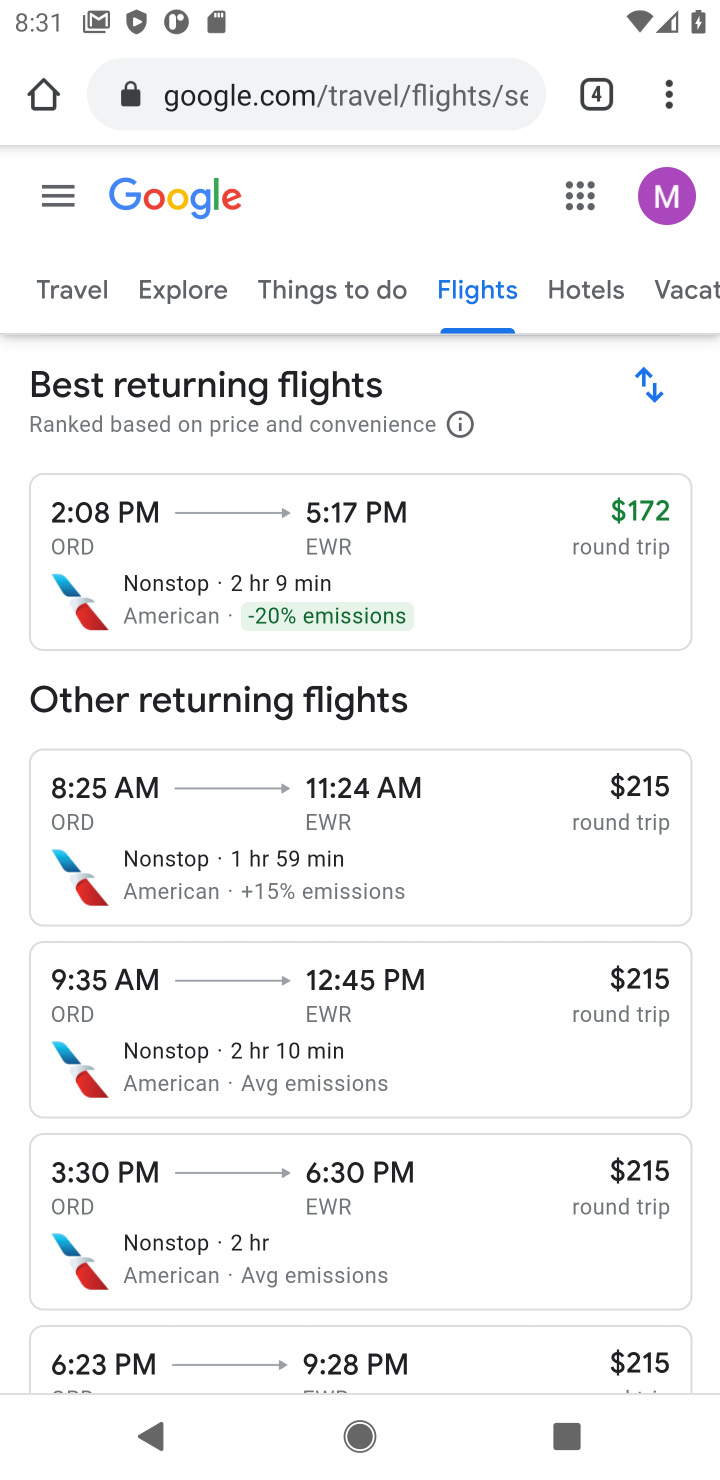
Step 31: task complete